Your task to perform on an android device: When is my next meeting? Image 0: 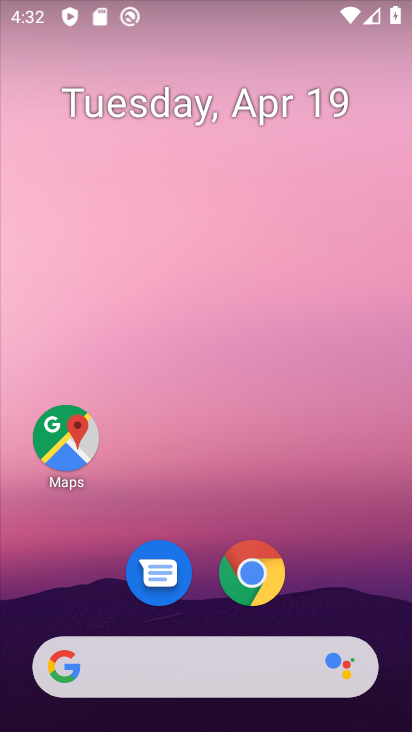
Step 0: drag from (378, 559) to (29, 64)
Your task to perform on an android device: When is my next meeting? Image 1: 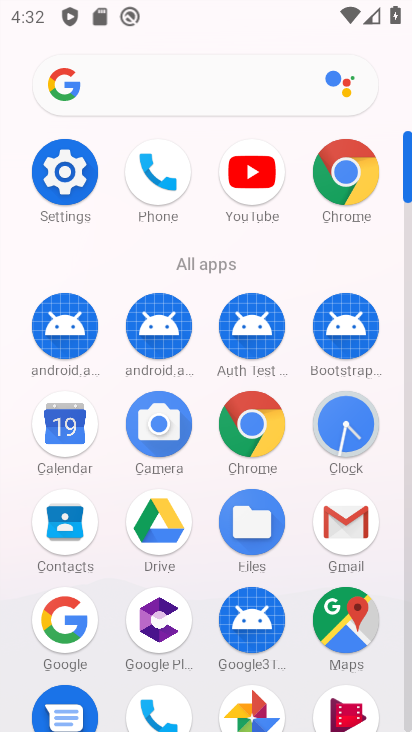
Step 1: click (79, 445)
Your task to perform on an android device: When is my next meeting? Image 2: 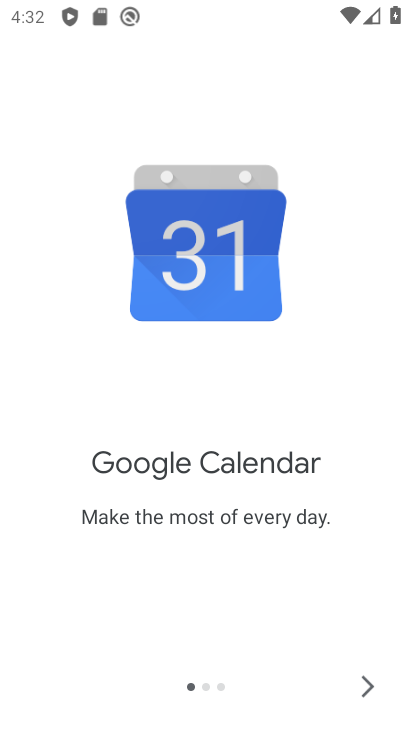
Step 2: click (368, 685)
Your task to perform on an android device: When is my next meeting? Image 3: 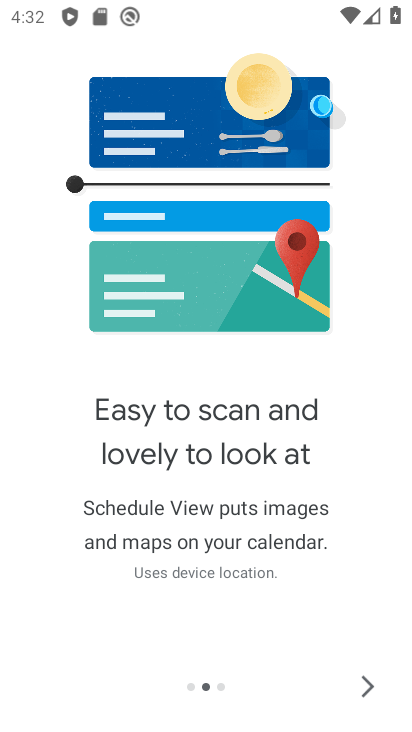
Step 3: click (368, 683)
Your task to perform on an android device: When is my next meeting? Image 4: 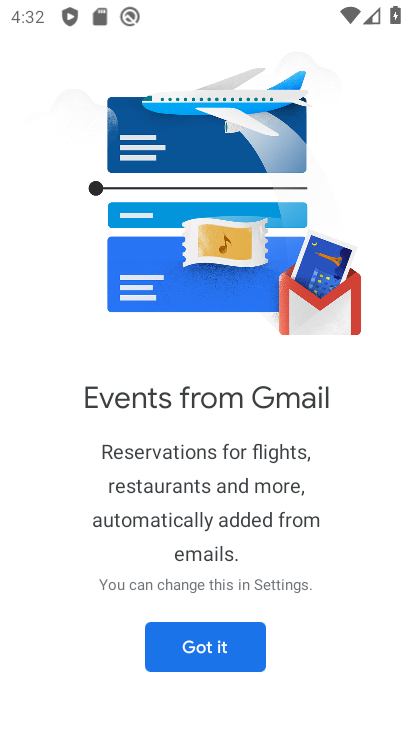
Step 4: click (206, 649)
Your task to perform on an android device: When is my next meeting? Image 5: 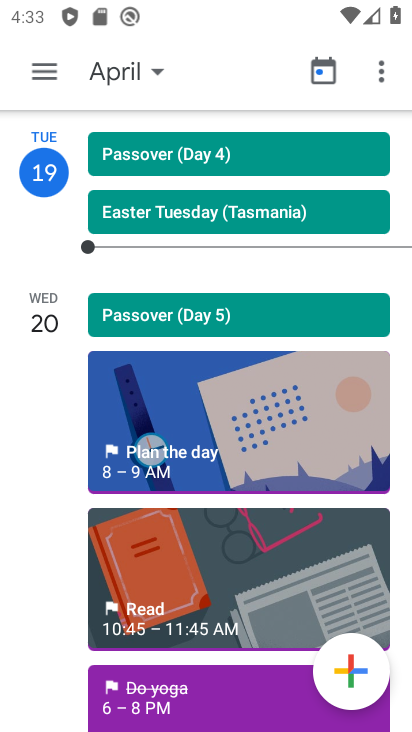
Step 5: click (123, 61)
Your task to perform on an android device: When is my next meeting? Image 6: 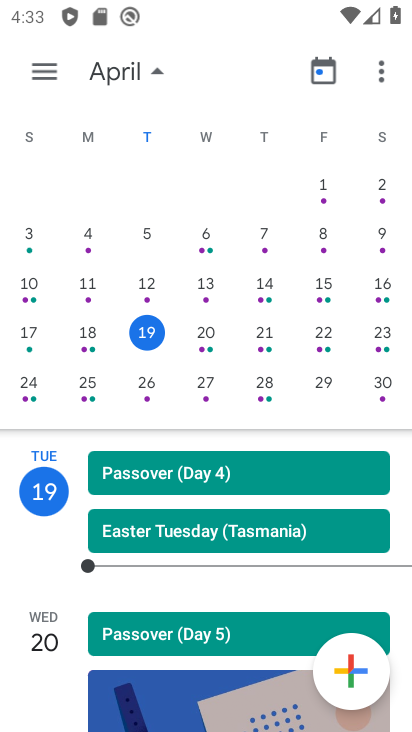
Step 6: task complete